Your task to perform on an android device: Search for pizza restaurants on Maps Image 0: 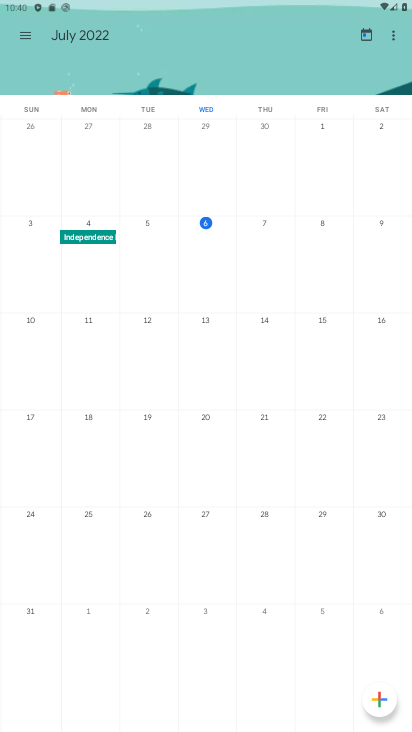
Step 0: press home button
Your task to perform on an android device: Search for pizza restaurants on Maps Image 1: 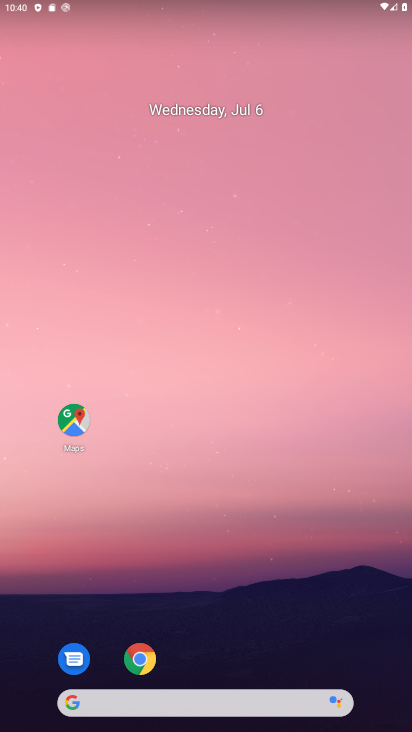
Step 1: click (70, 415)
Your task to perform on an android device: Search for pizza restaurants on Maps Image 2: 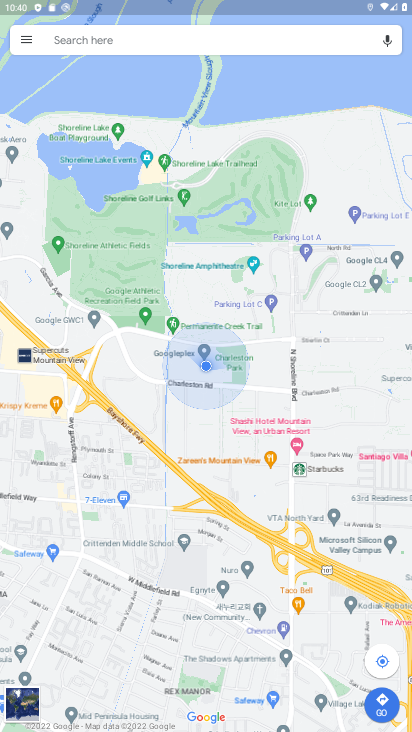
Step 2: click (136, 38)
Your task to perform on an android device: Search for pizza restaurants on Maps Image 3: 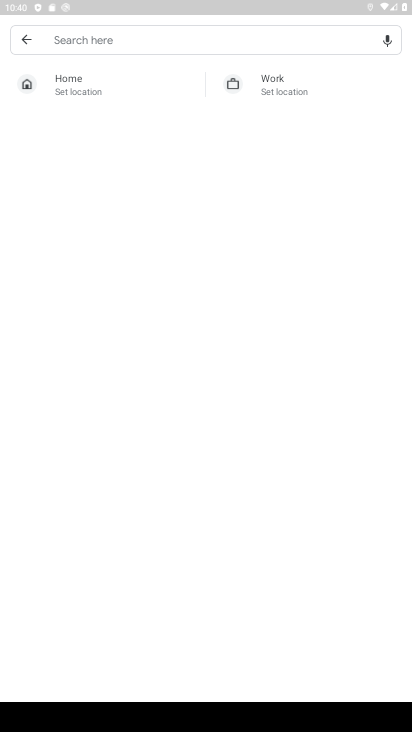
Step 3: type "pizza restaurants"
Your task to perform on an android device: Search for pizza restaurants on Maps Image 4: 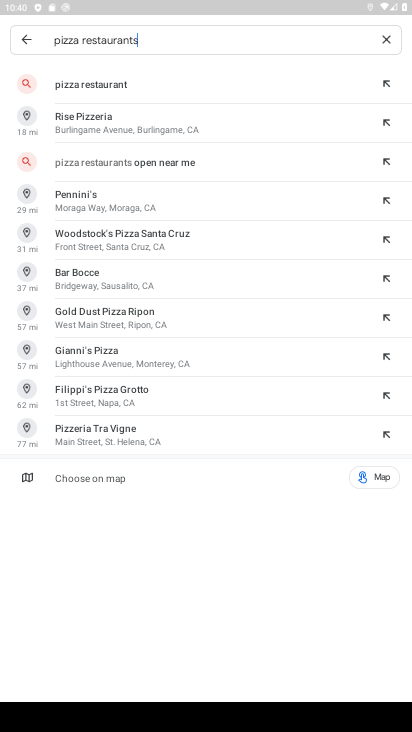
Step 4: click (105, 81)
Your task to perform on an android device: Search for pizza restaurants on Maps Image 5: 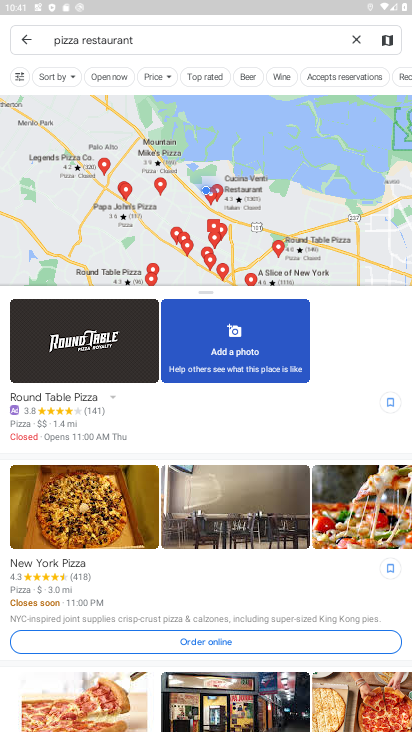
Step 5: task complete